Your task to perform on an android device: Google the capital of Brazil Image 0: 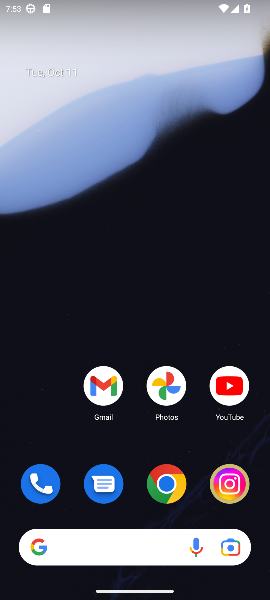
Step 0: click (168, 485)
Your task to perform on an android device: Google the capital of Brazil Image 1: 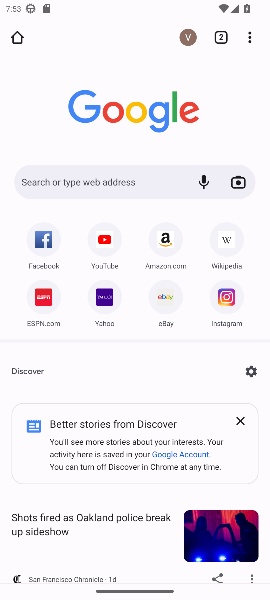
Step 1: click (135, 174)
Your task to perform on an android device: Google the capital of Brazil Image 2: 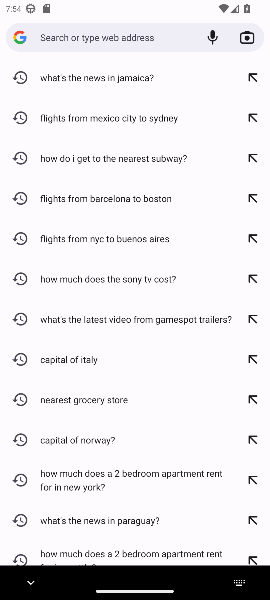
Step 2: type "capital of Brazil"
Your task to perform on an android device: Google the capital of Brazil Image 3: 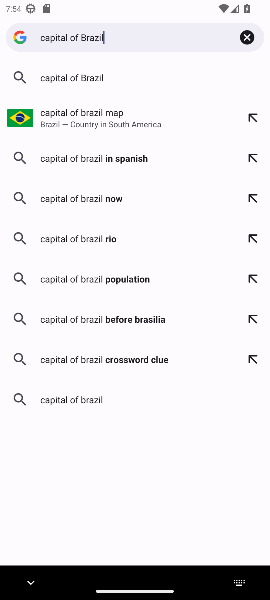
Step 3: click (67, 78)
Your task to perform on an android device: Google the capital of Brazil Image 4: 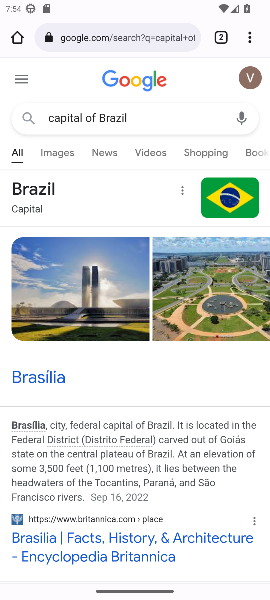
Step 4: task complete